Your task to perform on an android device: turn off javascript in the chrome app Image 0: 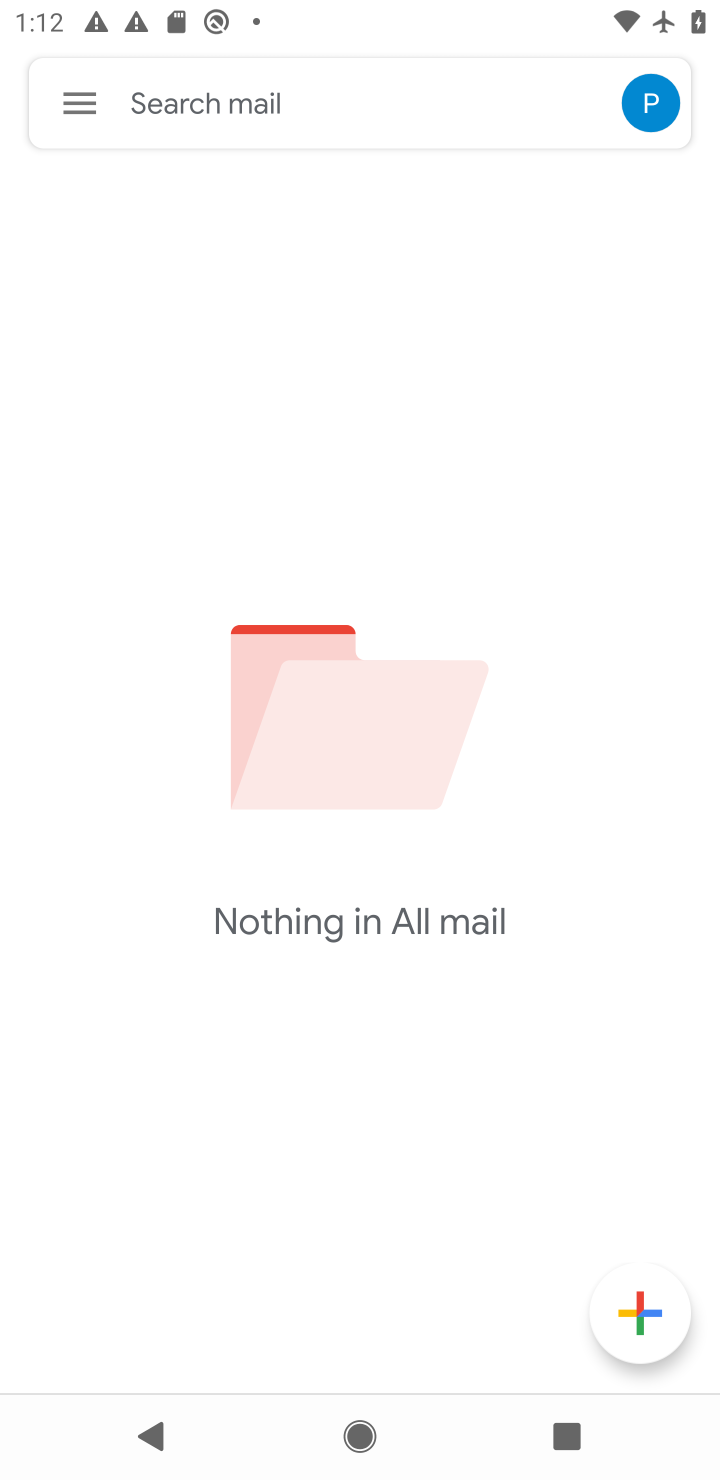
Step 0: task complete